Your task to perform on an android device: open app "Adobe Express: Graphic Design" Image 0: 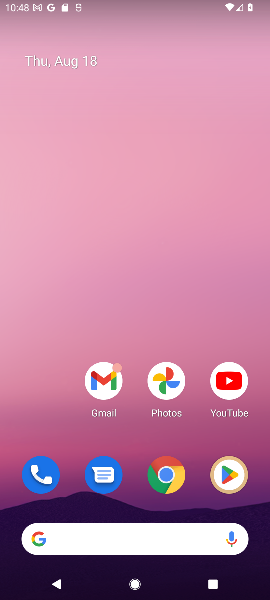
Step 0: press home button
Your task to perform on an android device: open app "Adobe Express: Graphic Design" Image 1: 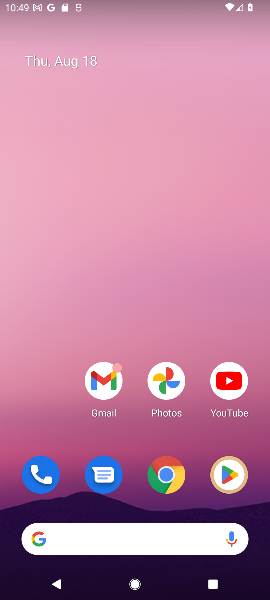
Step 1: click (224, 470)
Your task to perform on an android device: open app "Adobe Express: Graphic Design" Image 2: 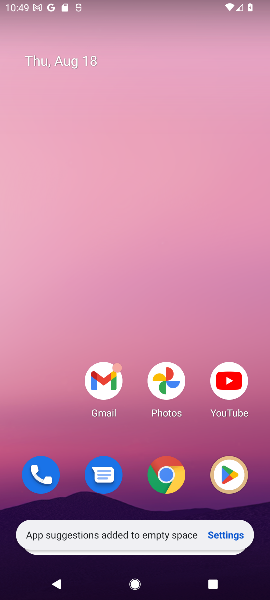
Step 2: click (224, 470)
Your task to perform on an android device: open app "Adobe Express: Graphic Design" Image 3: 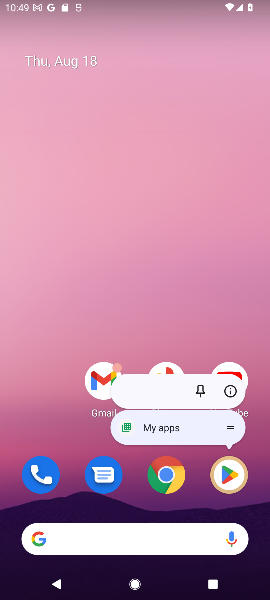
Step 3: click (224, 471)
Your task to perform on an android device: open app "Adobe Express: Graphic Design" Image 4: 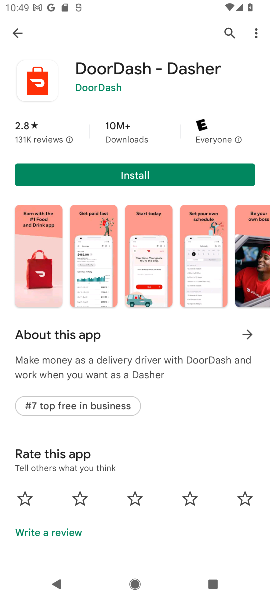
Step 4: click (187, 277)
Your task to perform on an android device: open app "Adobe Express: Graphic Design" Image 5: 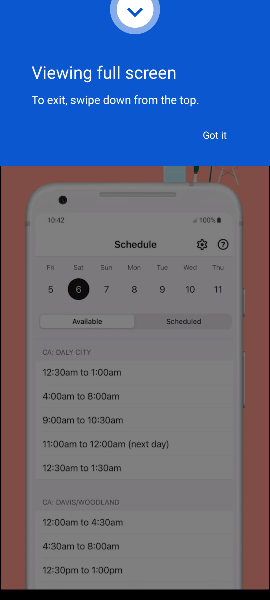
Step 5: click (21, 42)
Your task to perform on an android device: open app "Adobe Express: Graphic Design" Image 6: 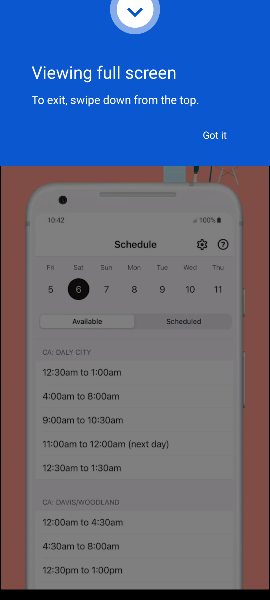
Step 6: press back button
Your task to perform on an android device: open app "Adobe Express: Graphic Design" Image 7: 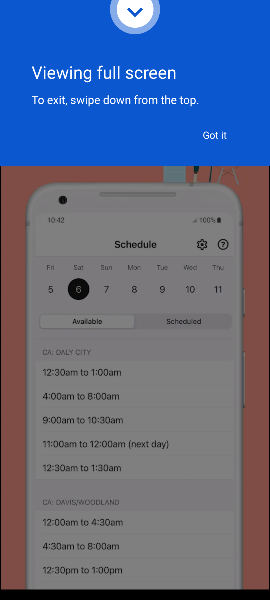
Step 7: press back button
Your task to perform on an android device: open app "Adobe Express: Graphic Design" Image 8: 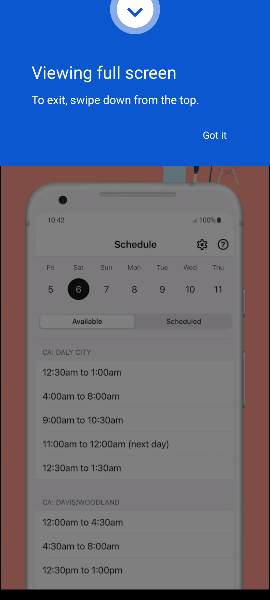
Step 8: click (218, 132)
Your task to perform on an android device: open app "Adobe Express: Graphic Design" Image 9: 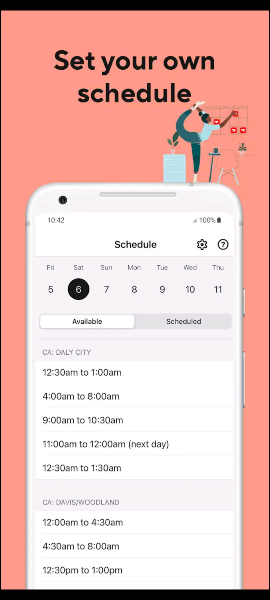
Step 9: press back button
Your task to perform on an android device: open app "Adobe Express: Graphic Design" Image 10: 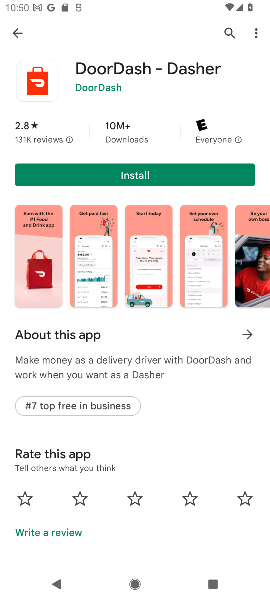
Step 10: click (14, 29)
Your task to perform on an android device: open app "Adobe Express: Graphic Design" Image 11: 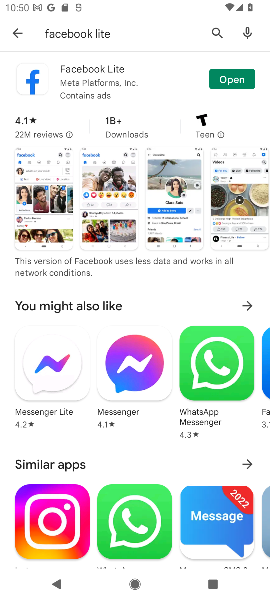
Step 11: click (221, 28)
Your task to perform on an android device: open app "Adobe Express: Graphic Design" Image 12: 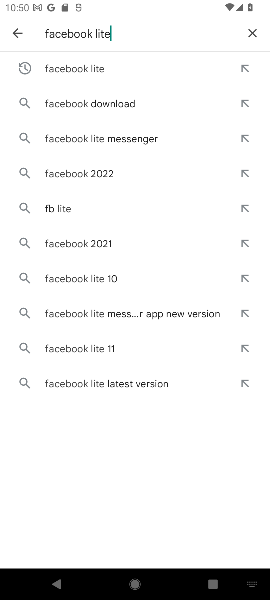
Step 12: click (255, 29)
Your task to perform on an android device: open app "Adobe Express: Graphic Design" Image 13: 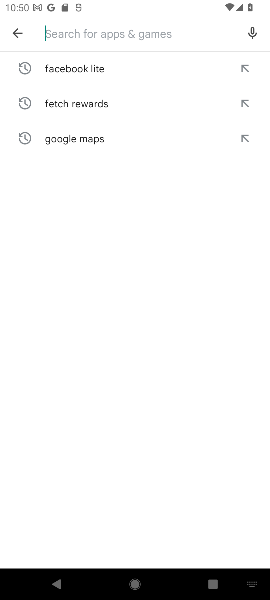
Step 13: type "Adobe Express: Graphic Design"
Your task to perform on an android device: open app "Adobe Express: Graphic Design" Image 14: 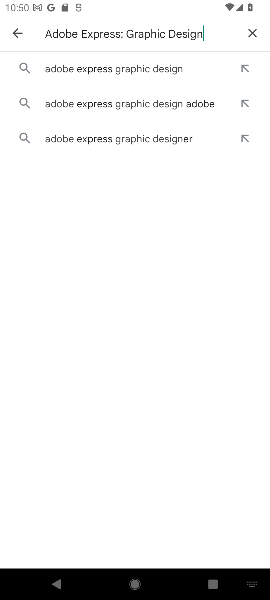
Step 14: click (186, 61)
Your task to perform on an android device: open app "Adobe Express: Graphic Design" Image 15: 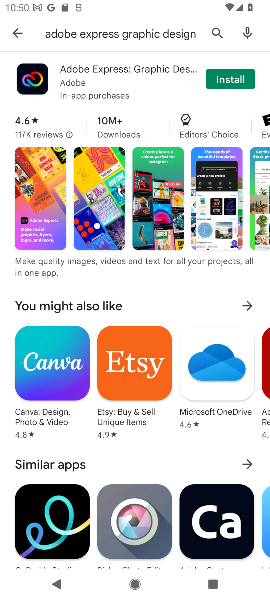
Step 15: task complete